Your task to perform on an android device: turn vacation reply on in the gmail app Image 0: 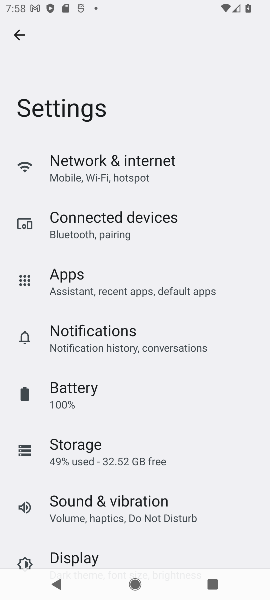
Step 0: press home button
Your task to perform on an android device: turn vacation reply on in the gmail app Image 1: 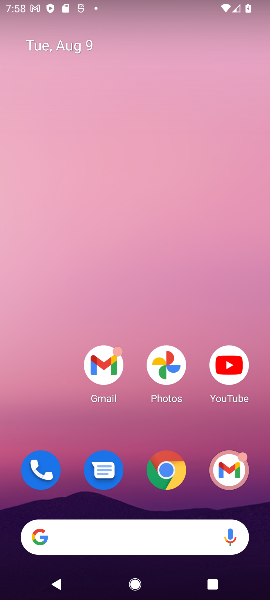
Step 1: click (101, 366)
Your task to perform on an android device: turn vacation reply on in the gmail app Image 2: 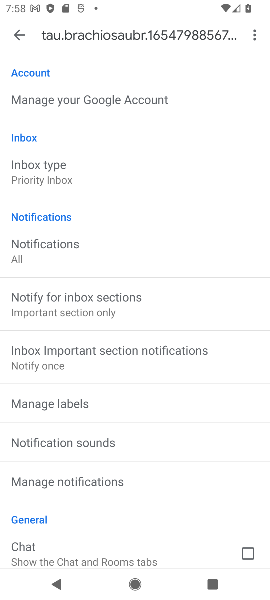
Step 2: drag from (111, 429) to (155, 215)
Your task to perform on an android device: turn vacation reply on in the gmail app Image 3: 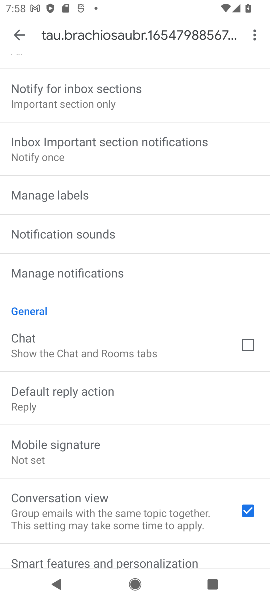
Step 3: drag from (102, 487) to (136, 226)
Your task to perform on an android device: turn vacation reply on in the gmail app Image 4: 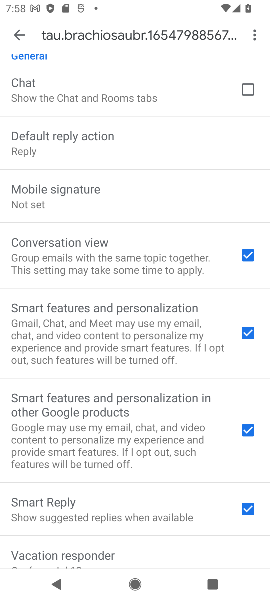
Step 4: drag from (143, 516) to (158, 321)
Your task to perform on an android device: turn vacation reply on in the gmail app Image 5: 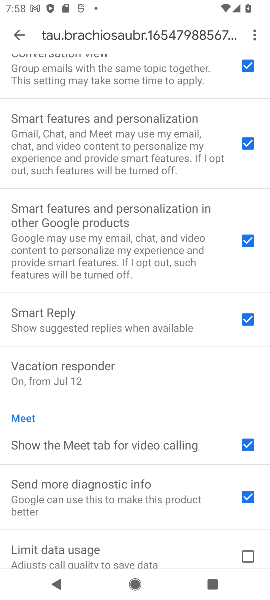
Step 5: click (83, 371)
Your task to perform on an android device: turn vacation reply on in the gmail app Image 6: 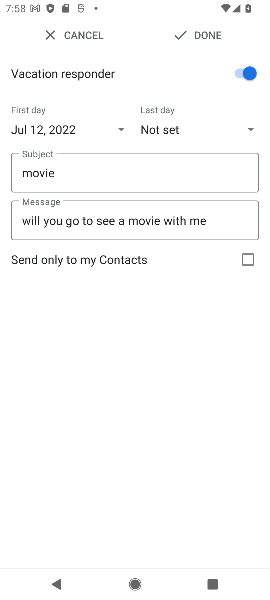
Step 6: click (211, 34)
Your task to perform on an android device: turn vacation reply on in the gmail app Image 7: 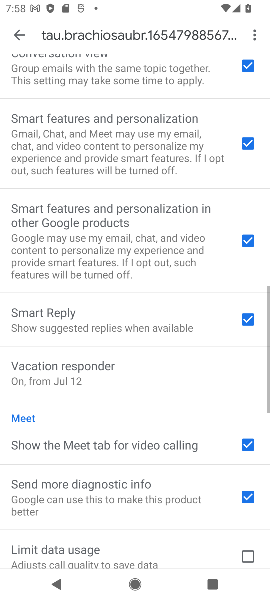
Step 7: task complete